Your task to perform on an android device: add a contact Image 0: 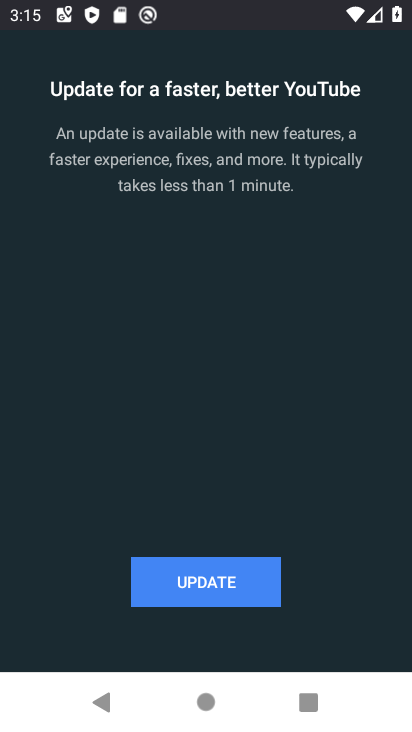
Step 0: press home button
Your task to perform on an android device: add a contact Image 1: 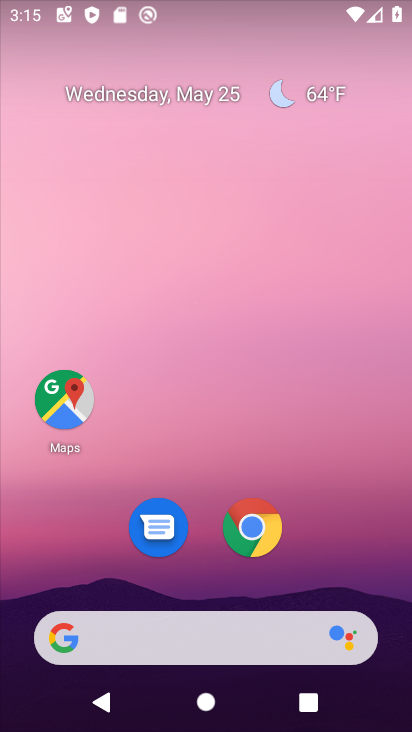
Step 1: drag from (186, 570) to (269, 158)
Your task to perform on an android device: add a contact Image 2: 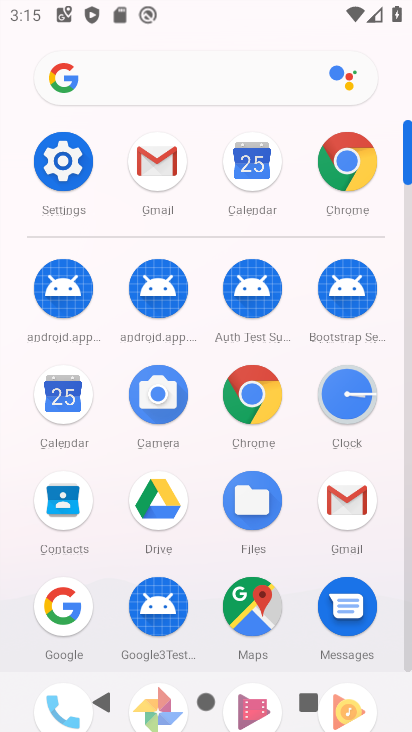
Step 2: click (59, 524)
Your task to perform on an android device: add a contact Image 3: 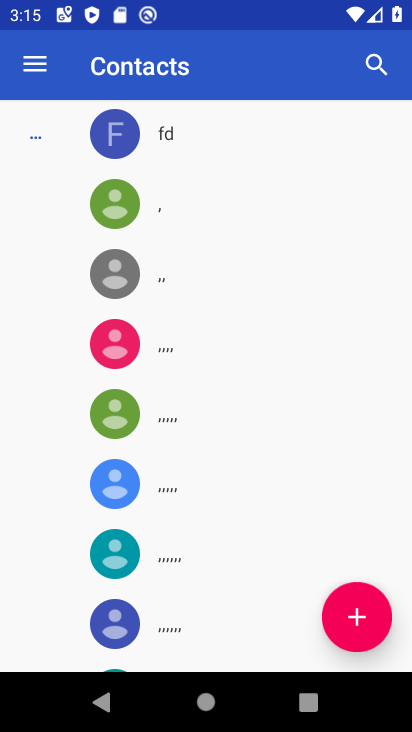
Step 3: click (358, 604)
Your task to perform on an android device: add a contact Image 4: 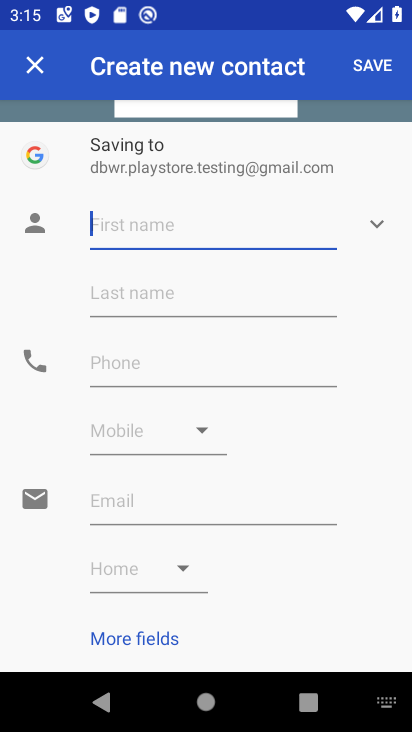
Step 4: click (119, 212)
Your task to perform on an android device: add a contact Image 5: 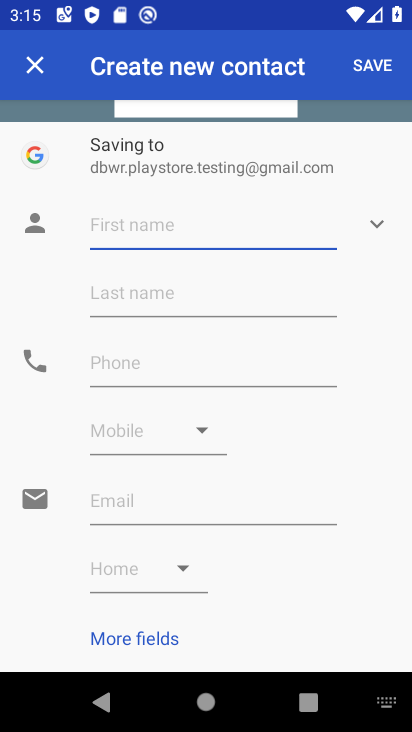
Step 5: type "bfbf"
Your task to perform on an android device: add a contact Image 6: 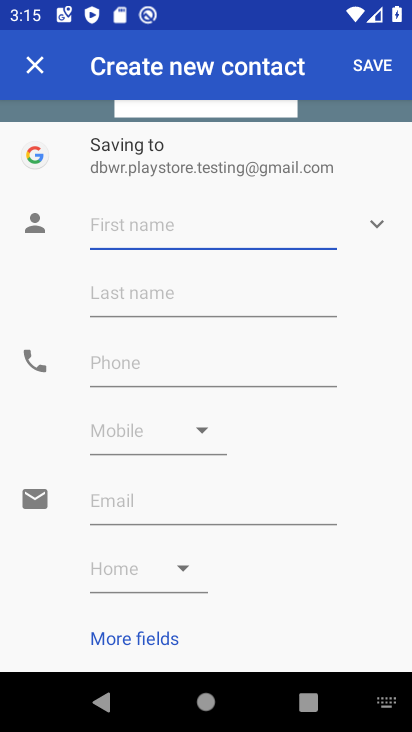
Step 6: click (142, 341)
Your task to perform on an android device: add a contact Image 7: 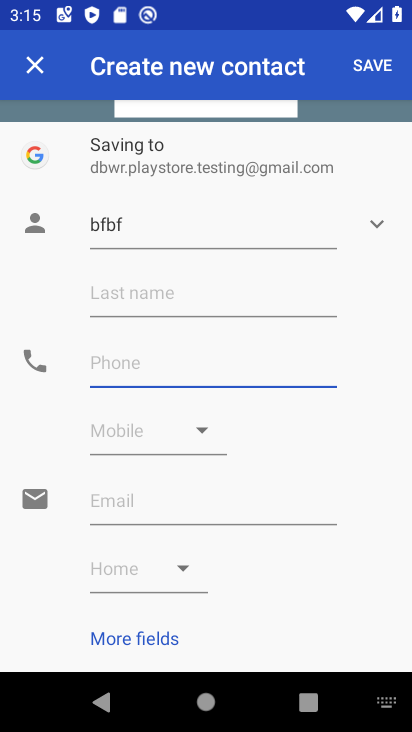
Step 7: type "56544"
Your task to perform on an android device: add a contact Image 8: 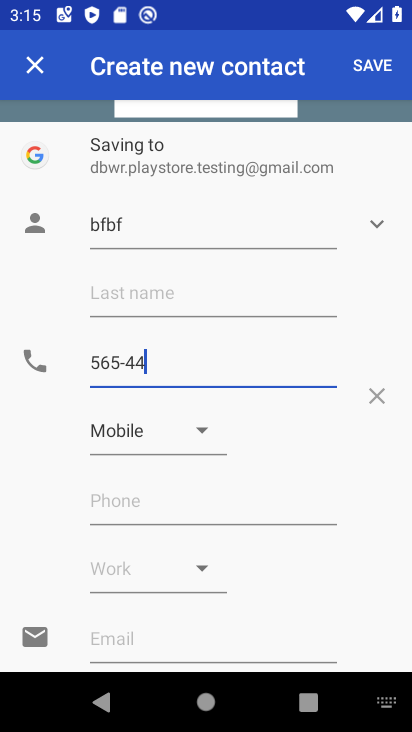
Step 8: click (365, 60)
Your task to perform on an android device: add a contact Image 9: 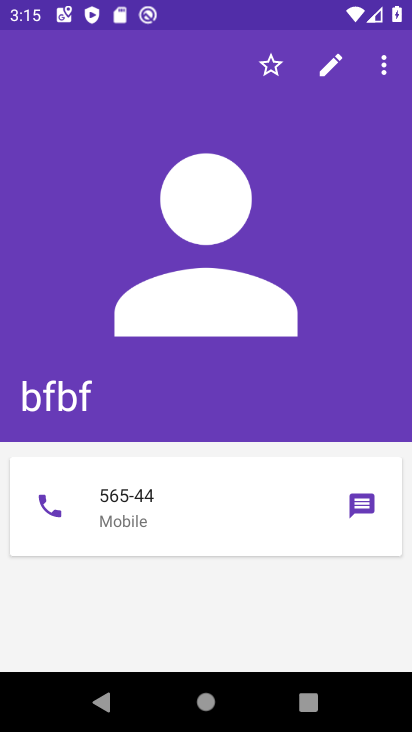
Step 9: task complete